Your task to perform on an android device: turn notification dots on Image 0: 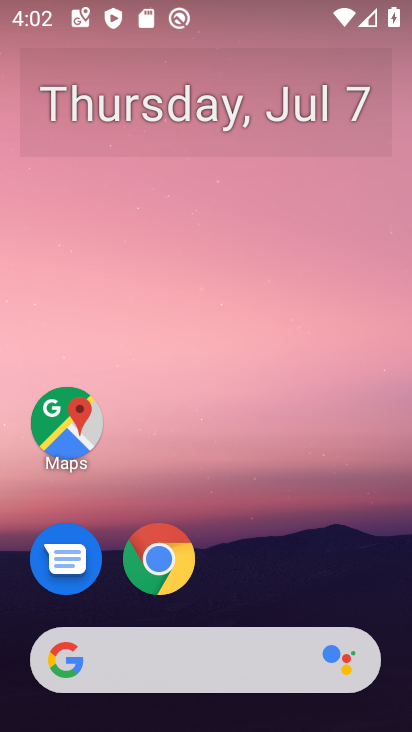
Step 0: drag from (261, 575) to (294, 11)
Your task to perform on an android device: turn notification dots on Image 1: 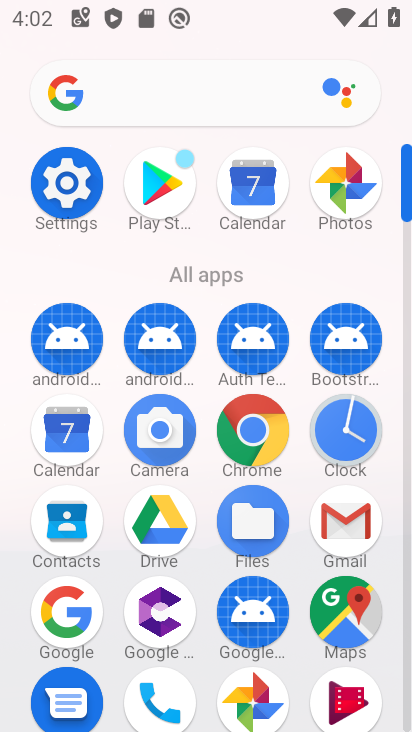
Step 1: click (74, 180)
Your task to perform on an android device: turn notification dots on Image 2: 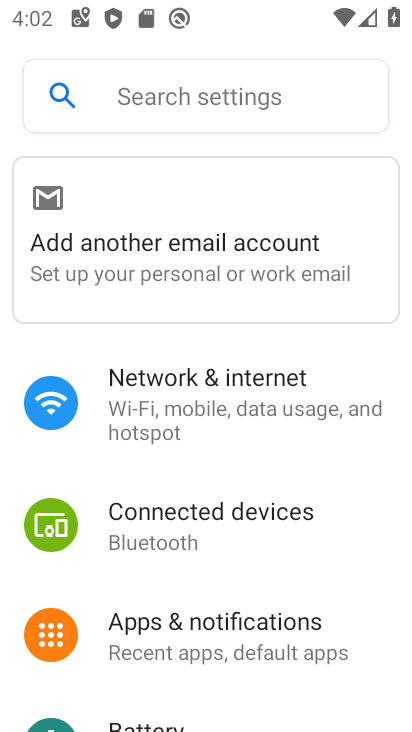
Step 2: click (195, 634)
Your task to perform on an android device: turn notification dots on Image 3: 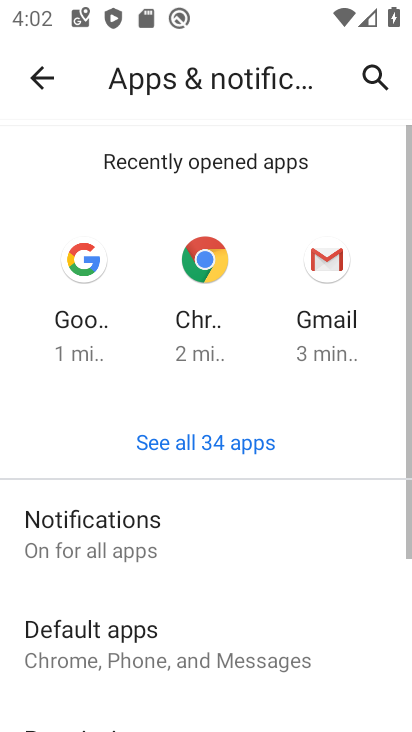
Step 3: click (139, 548)
Your task to perform on an android device: turn notification dots on Image 4: 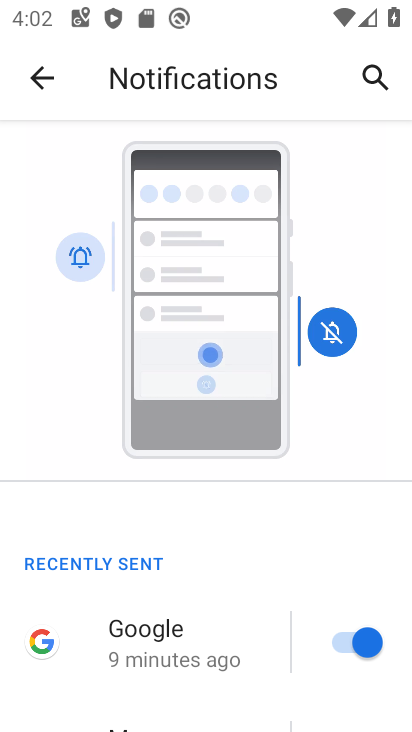
Step 4: drag from (162, 664) to (265, 20)
Your task to perform on an android device: turn notification dots on Image 5: 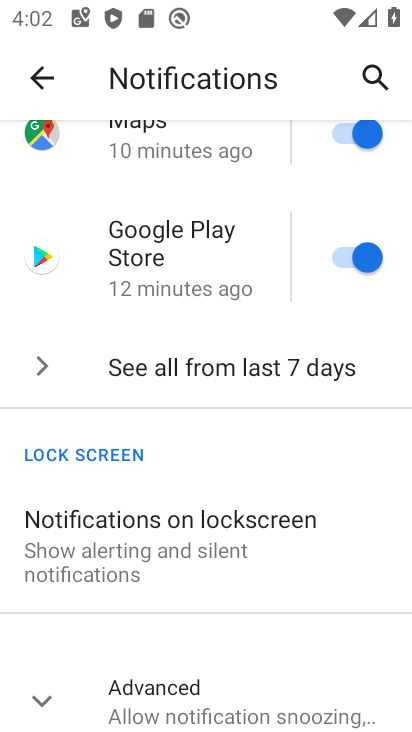
Step 5: click (199, 661)
Your task to perform on an android device: turn notification dots on Image 6: 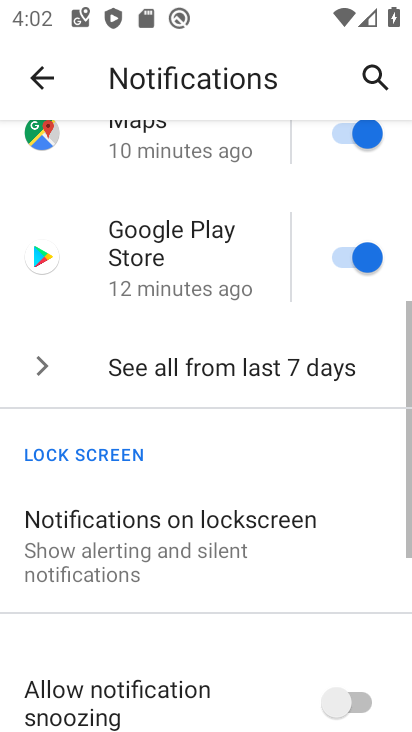
Step 6: task complete